Your task to perform on an android device: turn off javascript in the chrome app Image 0: 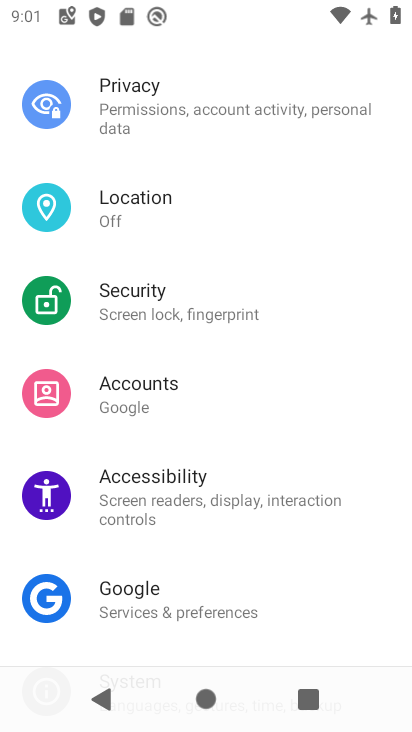
Step 0: press home button
Your task to perform on an android device: turn off javascript in the chrome app Image 1: 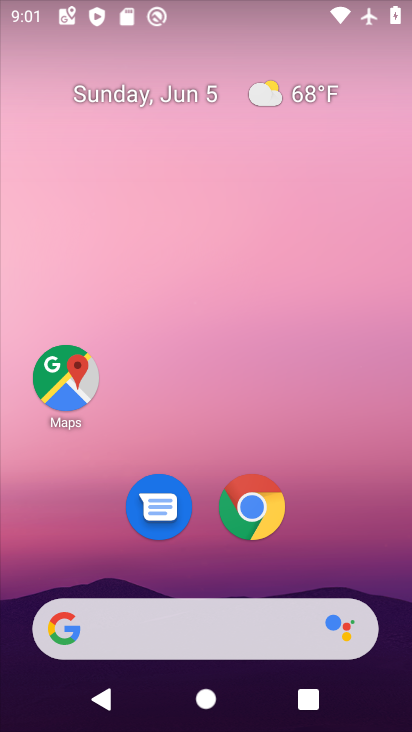
Step 1: click (253, 509)
Your task to perform on an android device: turn off javascript in the chrome app Image 2: 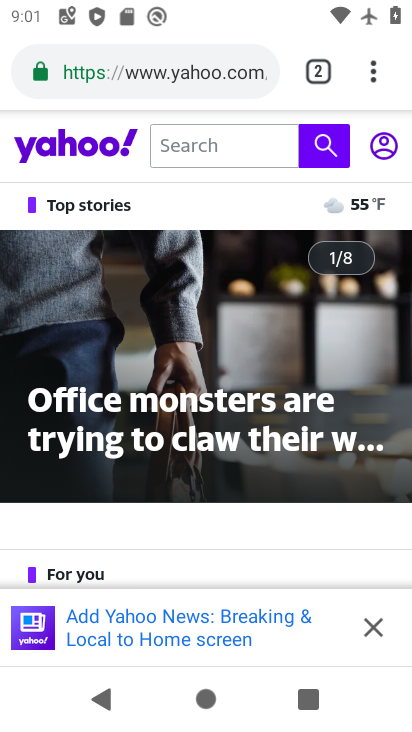
Step 2: click (372, 92)
Your task to perform on an android device: turn off javascript in the chrome app Image 3: 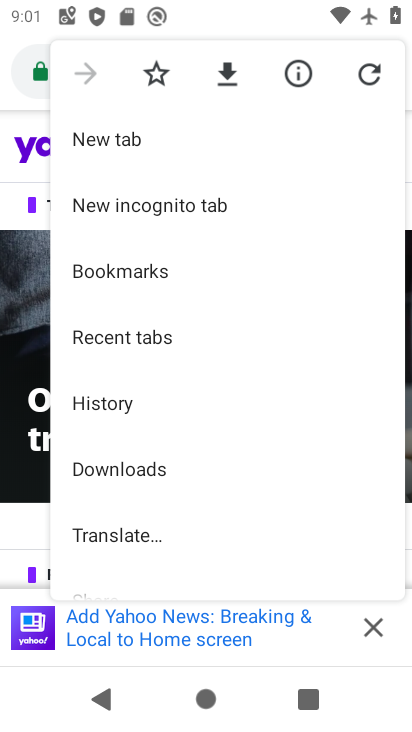
Step 3: drag from (124, 544) to (150, 285)
Your task to perform on an android device: turn off javascript in the chrome app Image 4: 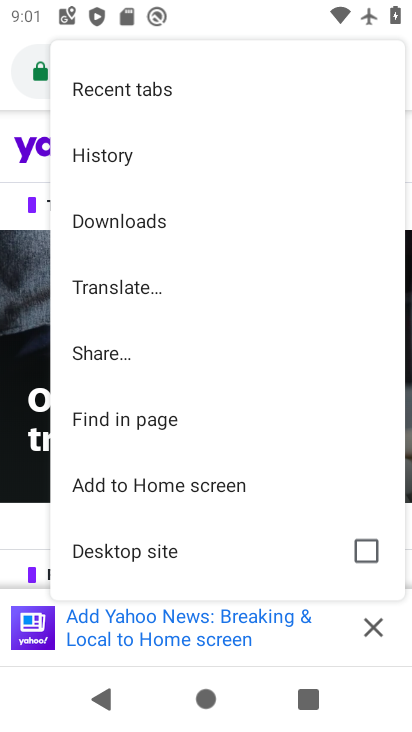
Step 4: drag from (120, 522) to (177, 211)
Your task to perform on an android device: turn off javascript in the chrome app Image 5: 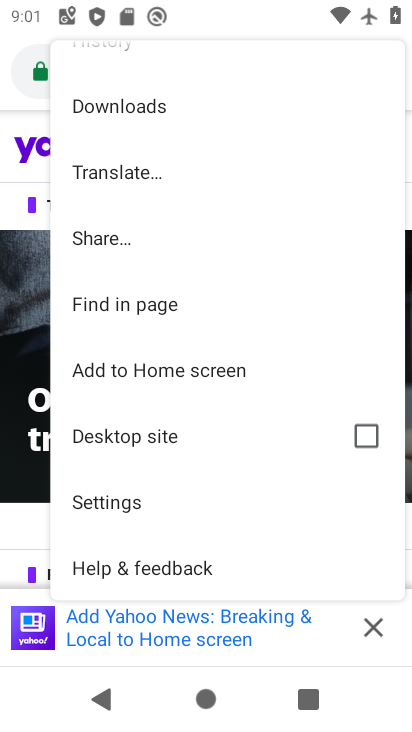
Step 5: click (138, 508)
Your task to perform on an android device: turn off javascript in the chrome app Image 6: 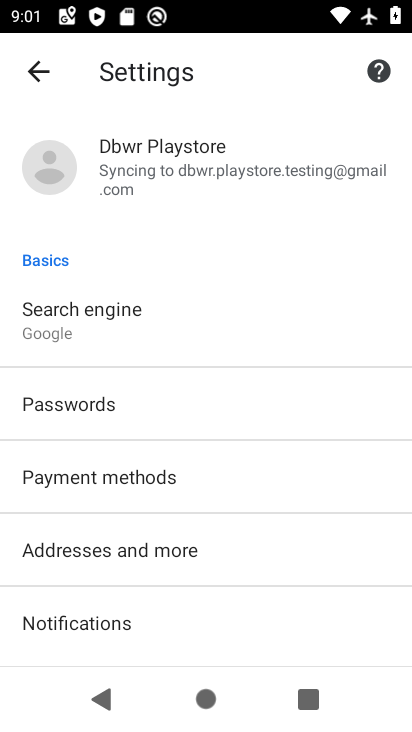
Step 6: drag from (142, 443) to (161, 210)
Your task to perform on an android device: turn off javascript in the chrome app Image 7: 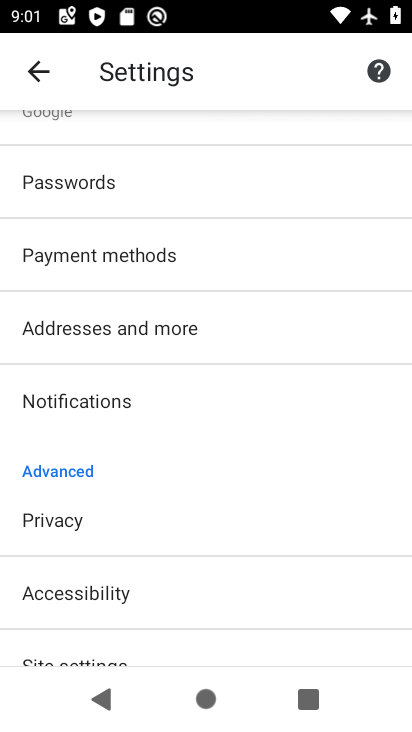
Step 7: drag from (106, 552) to (138, 395)
Your task to perform on an android device: turn off javascript in the chrome app Image 8: 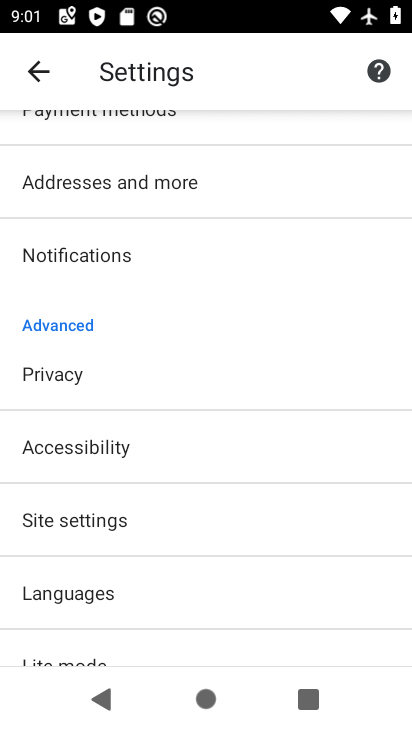
Step 8: click (110, 533)
Your task to perform on an android device: turn off javascript in the chrome app Image 9: 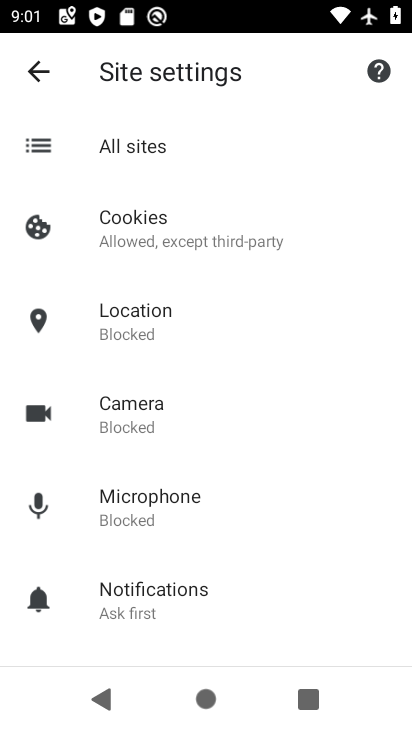
Step 9: drag from (158, 567) to (197, 105)
Your task to perform on an android device: turn off javascript in the chrome app Image 10: 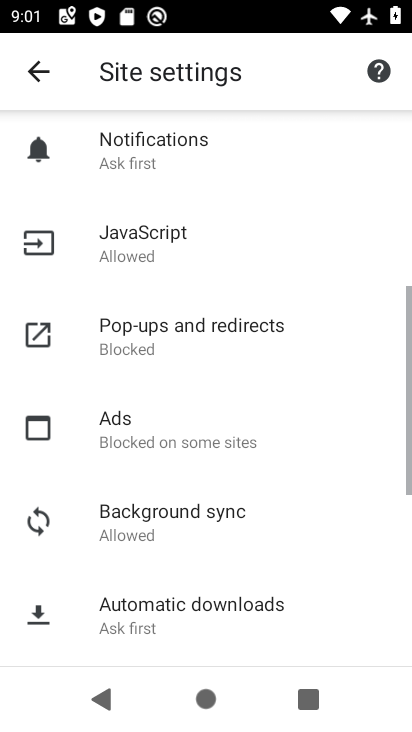
Step 10: click (155, 257)
Your task to perform on an android device: turn off javascript in the chrome app Image 11: 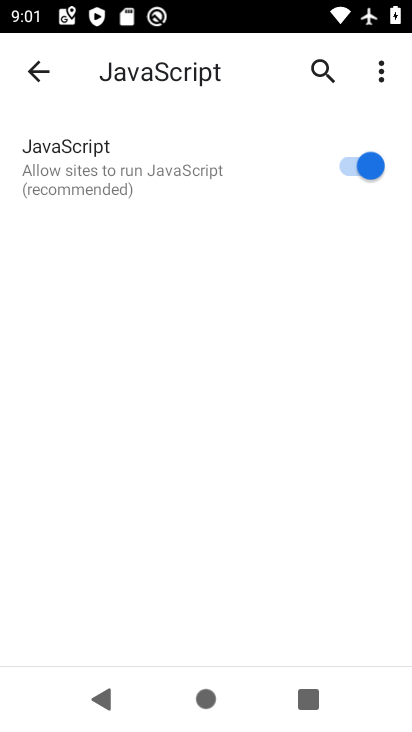
Step 11: click (324, 167)
Your task to perform on an android device: turn off javascript in the chrome app Image 12: 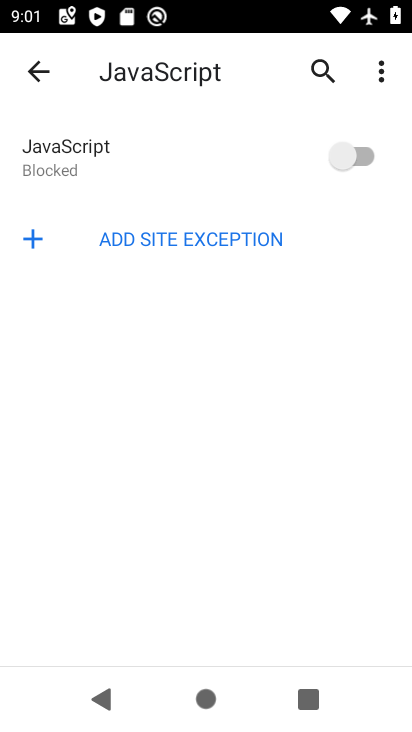
Step 12: task complete